Your task to perform on an android device: turn off picture-in-picture Image 0: 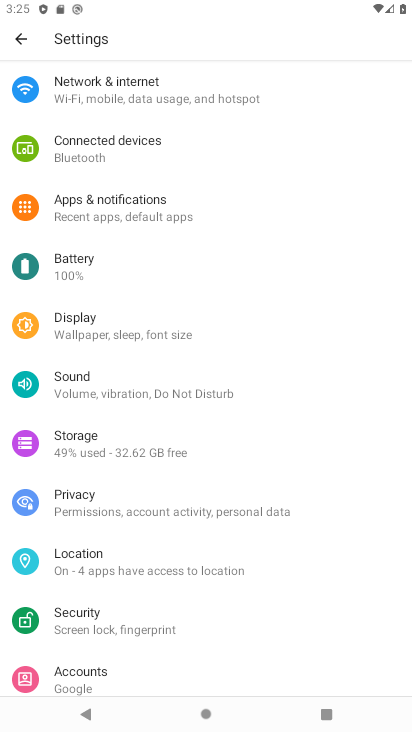
Step 0: click (138, 200)
Your task to perform on an android device: turn off picture-in-picture Image 1: 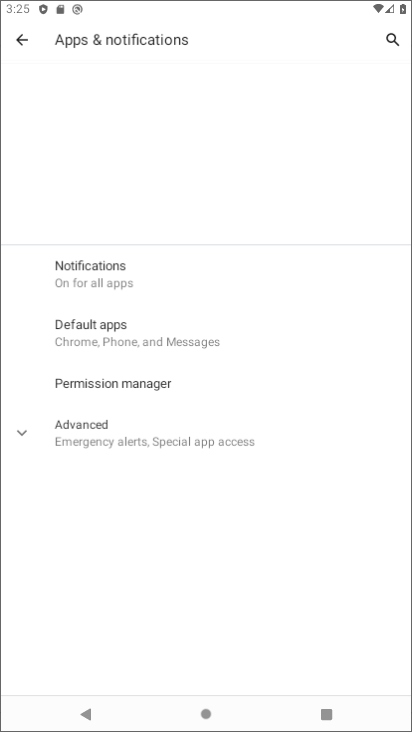
Step 1: drag from (138, 676) to (183, 72)
Your task to perform on an android device: turn off picture-in-picture Image 2: 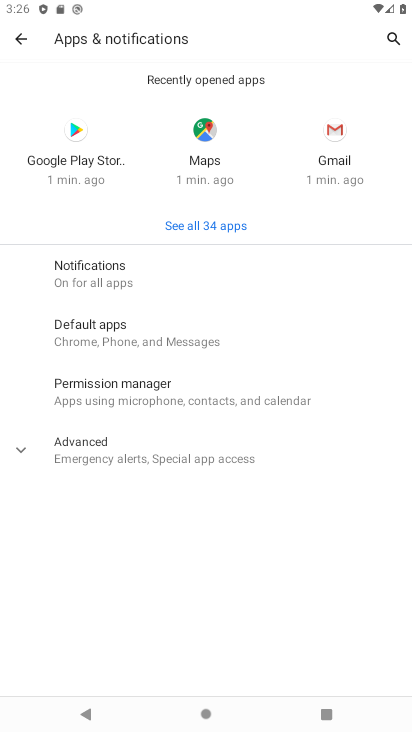
Step 2: click (159, 459)
Your task to perform on an android device: turn off picture-in-picture Image 3: 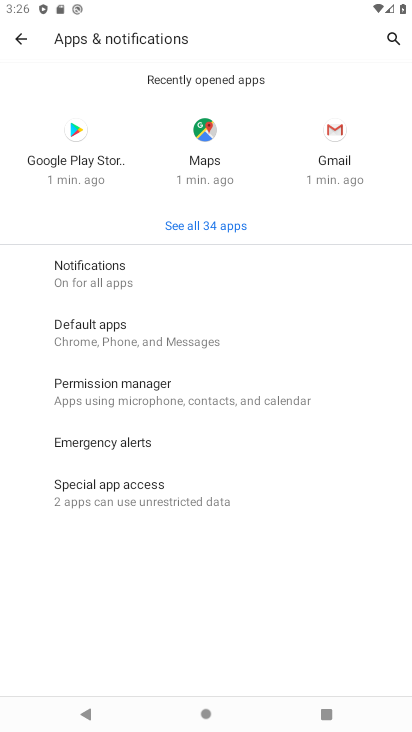
Step 3: click (119, 479)
Your task to perform on an android device: turn off picture-in-picture Image 4: 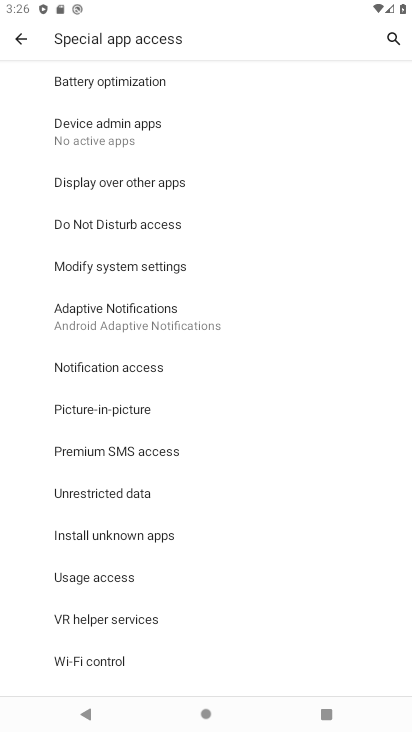
Step 4: click (107, 405)
Your task to perform on an android device: turn off picture-in-picture Image 5: 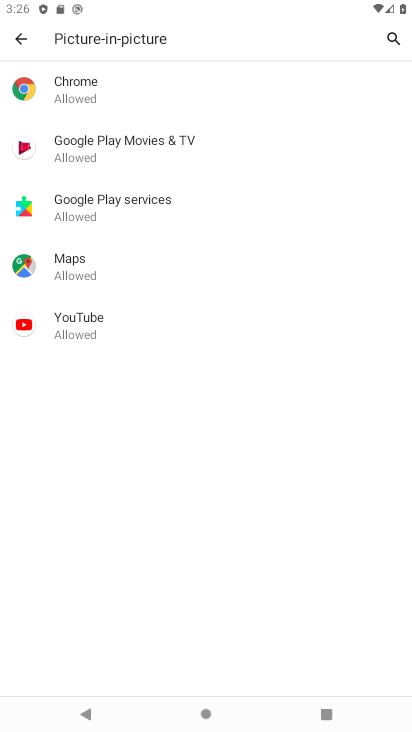
Step 5: click (114, 95)
Your task to perform on an android device: turn off picture-in-picture Image 6: 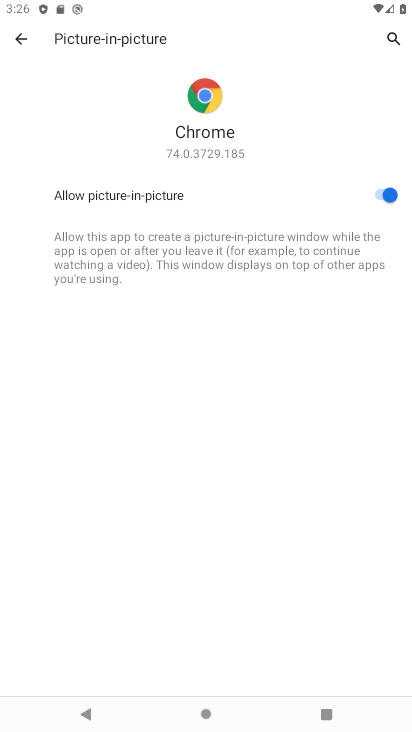
Step 6: click (379, 192)
Your task to perform on an android device: turn off picture-in-picture Image 7: 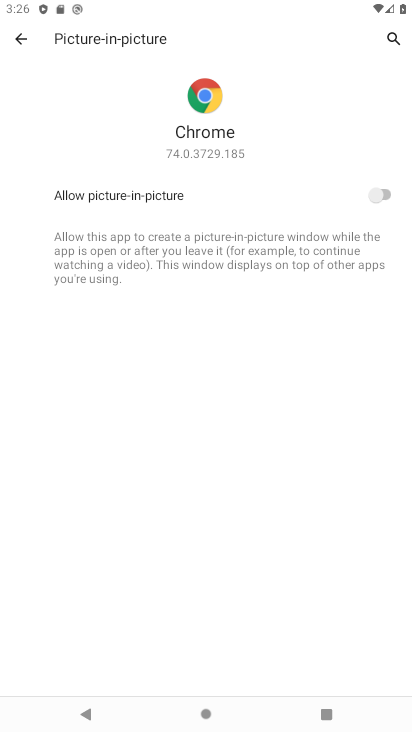
Step 7: press back button
Your task to perform on an android device: turn off picture-in-picture Image 8: 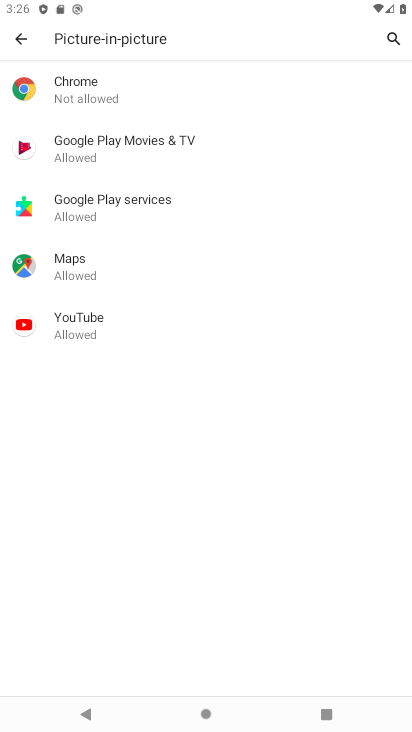
Step 8: click (115, 131)
Your task to perform on an android device: turn off picture-in-picture Image 9: 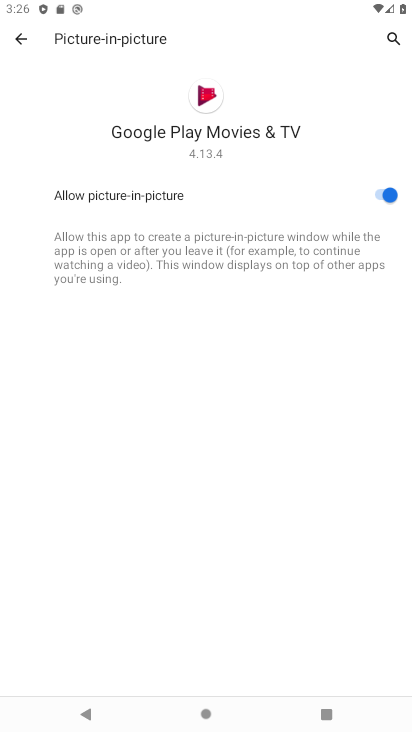
Step 9: click (379, 197)
Your task to perform on an android device: turn off picture-in-picture Image 10: 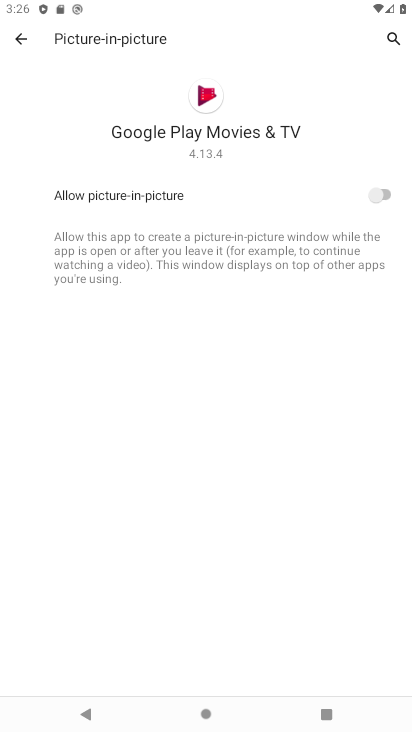
Step 10: press back button
Your task to perform on an android device: turn off picture-in-picture Image 11: 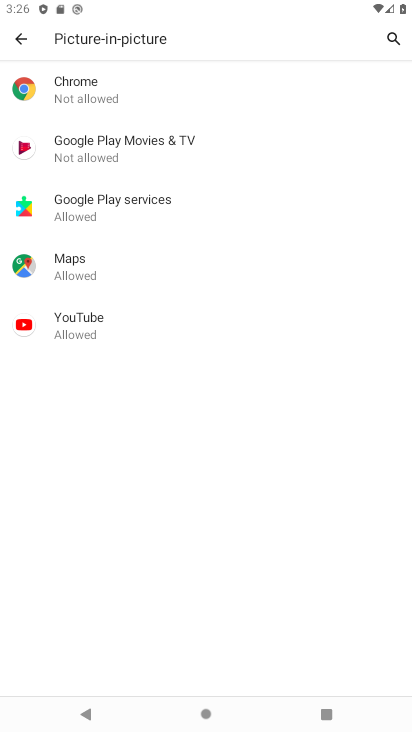
Step 11: click (123, 219)
Your task to perform on an android device: turn off picture-in-picture Image 12: 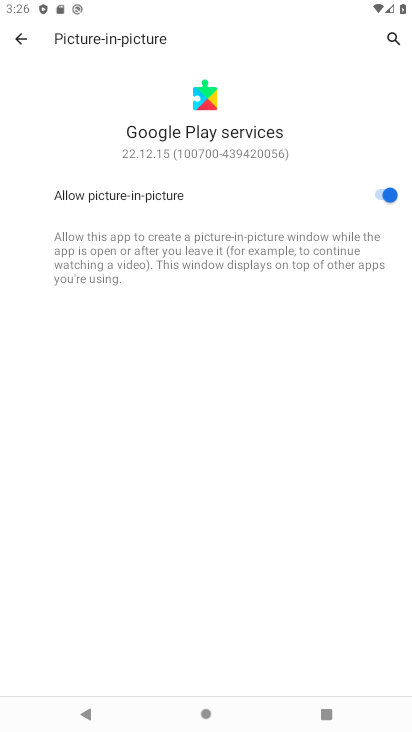
Step 12: click (382, 193)
Your task to perform on an android device: turn off picture-in-picture Image 13: 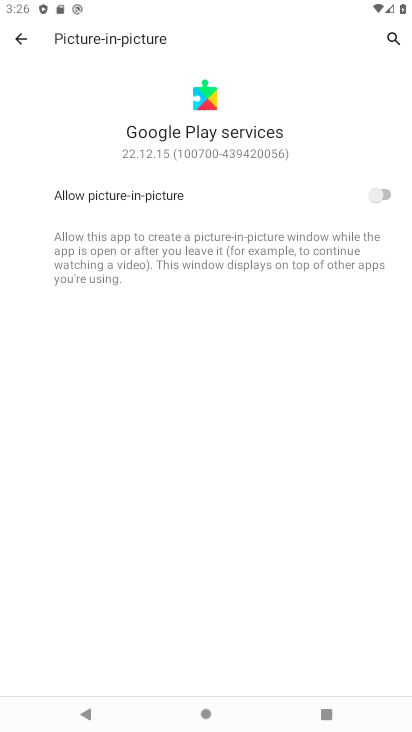
Step 13: press back button
Your task to perform on an android device: turn off picture-in-picture Image 14: 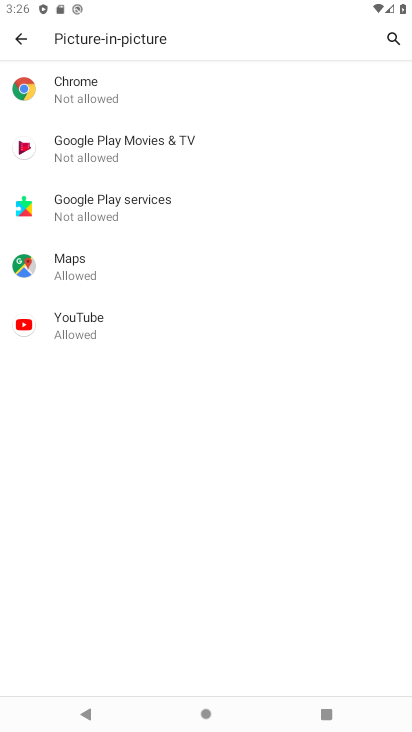
Step 14: click (101, 258)
Your task to perform on an android device: turn off picture-in-picture Image 15: 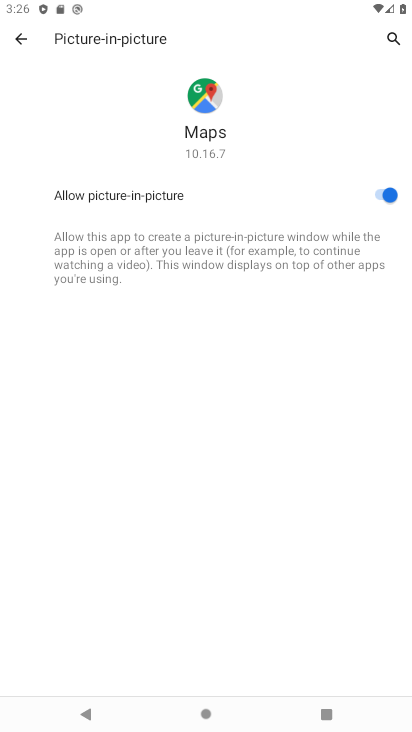
Step 15: click (388, 194)
Your task to perform on an android device: turn off picture-in-picture Image 16: 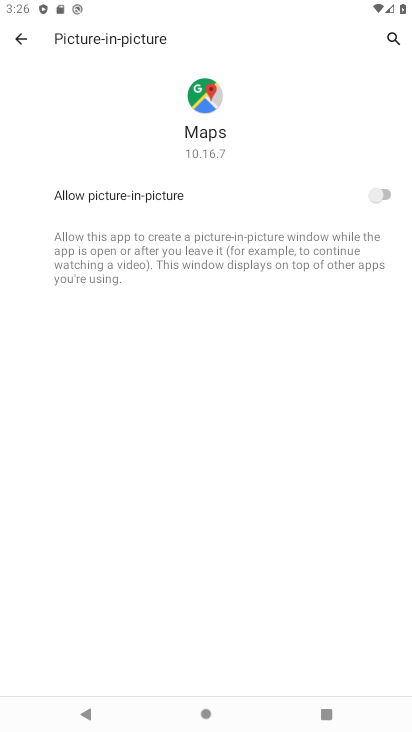
Step 16: press back button
Your task to perform on an android device: turn off picture-in-picture Image 17: 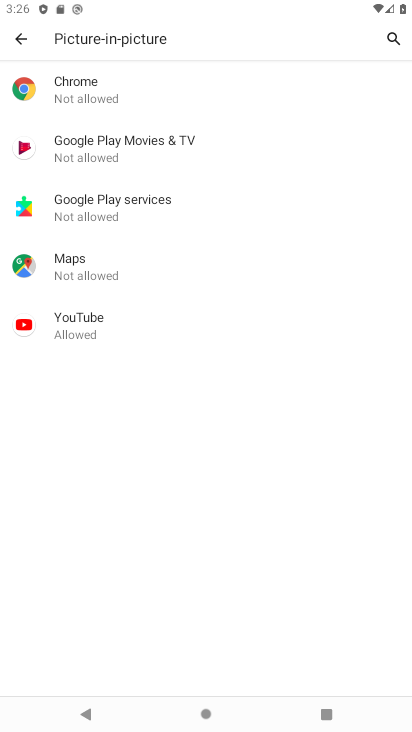
Step 17: click (141, 339)
Your task to perform on an android device: turn off picture-in-picture Image 18: 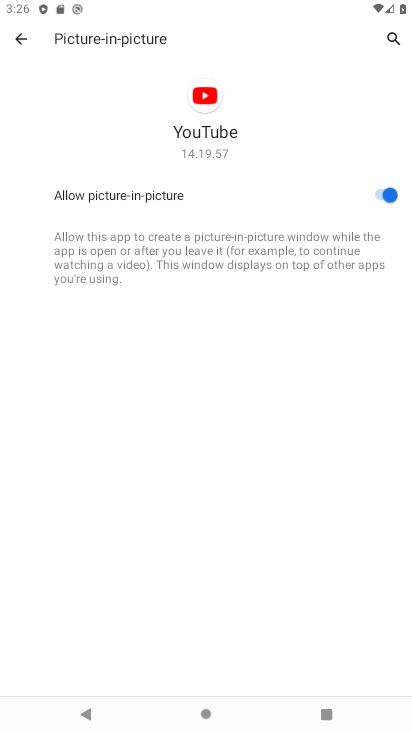
Step 18: click (373, 195)
Your task to perform on an android device: turn off picture-in-picture Image 19: 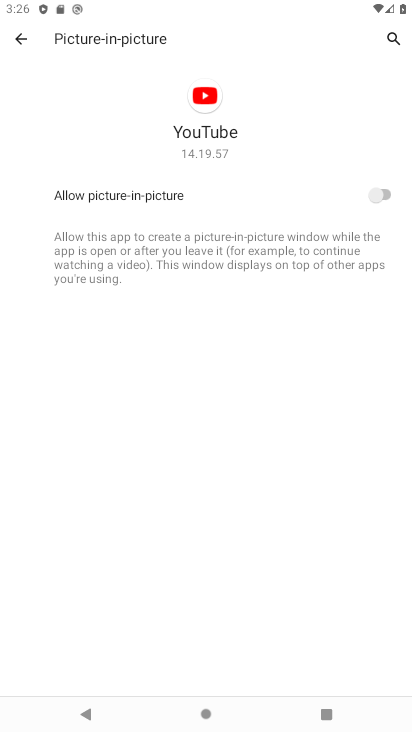
Step 19: task complete